Your task to perform on an android device: Search for the ikea billy bookcase Image 0: 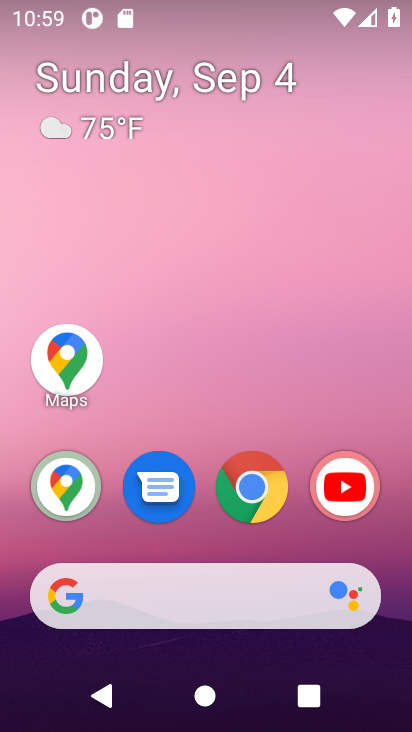
Step 0: click (76, 453)
Your task to perform on an android device: Search for the ikea billy bookcase Image 1: 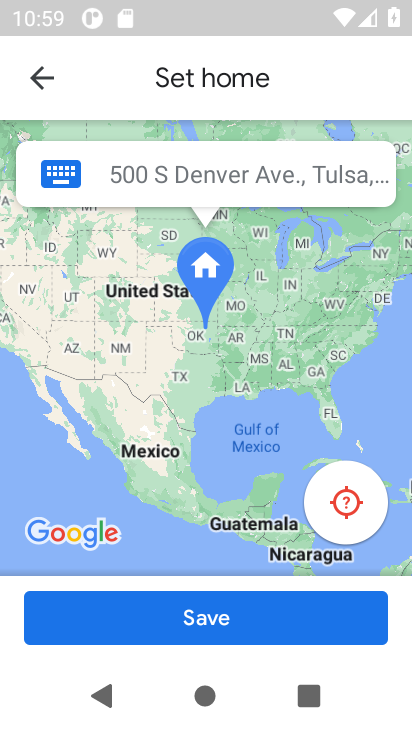
Step 1: task complete